Your task to perform on an android device: Search for vegetarian restaurants on Maps Image 0: 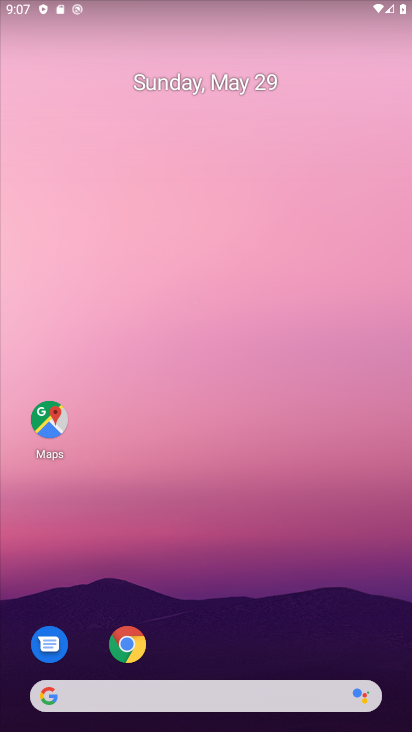
Step 0: drag from (261, 661) to (235, 273)
Your task to perform on an android device: Search for vegetarian restaurants on Maps Image 1: 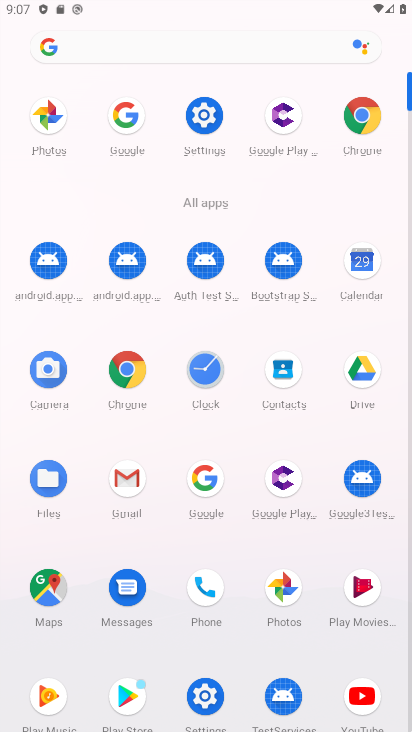
Step 1: click (45, 587)
Your task to perform on an android device: Search for vegetarian restaurants on Maps Image 2: 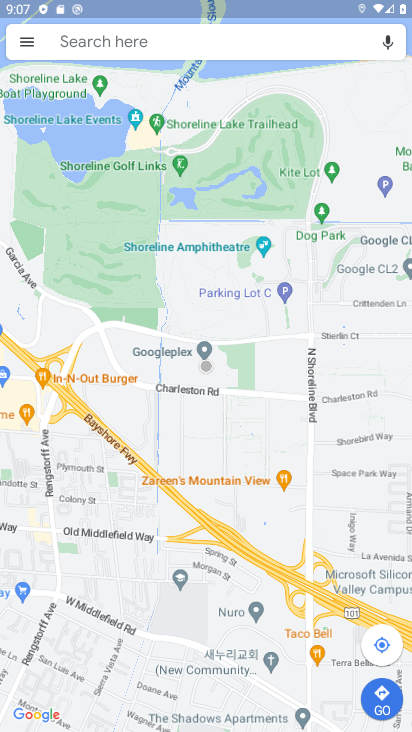
Step 2: click (132, 44)
Your task to perform on an android device: Search for vegetarian restaurants on Maps Image 3: 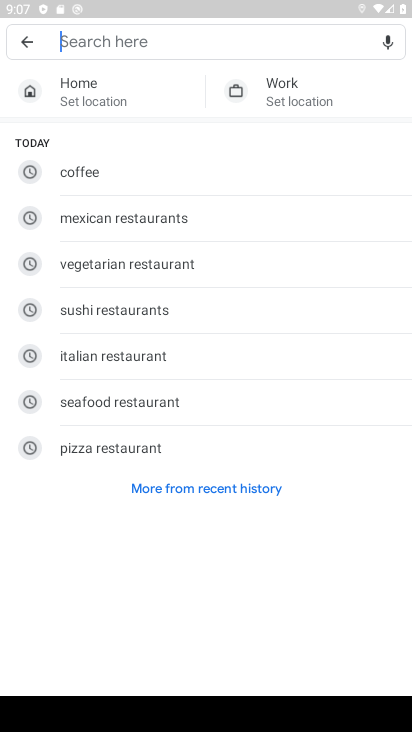
Step 3: type "vegetarian restaurants"
Your task to perform on an android device: Search for vegetarian restaurants on Maps Image 4: 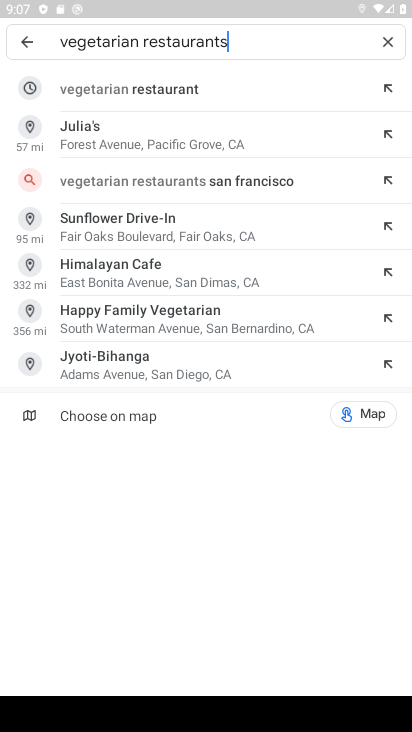
Step 4: click (178, 91)
Your task to perform on an android device: Search for vegetarian restaurants on Maps Image 5: 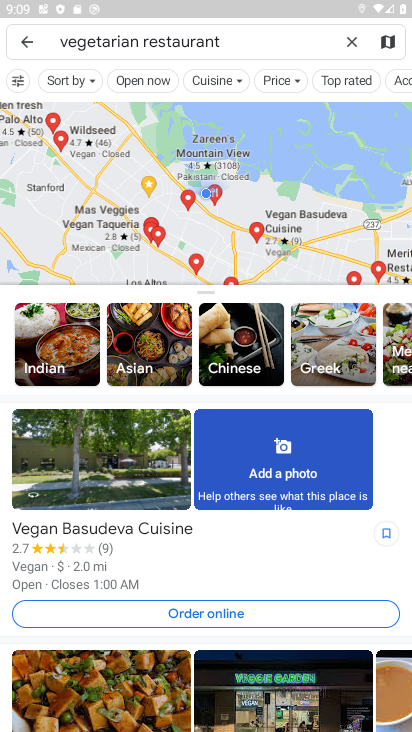
Step 5: task complete